Your task to perform on an android device: Open notification settings Image 0: 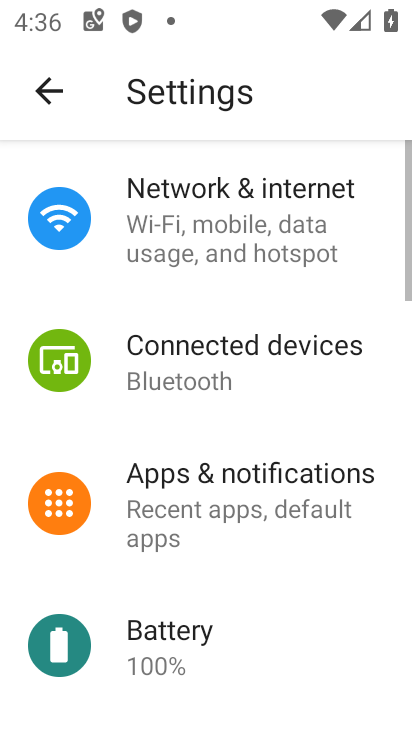
Step 0: press back button
Your task to perform on an android device: Open notification settings Image 1: 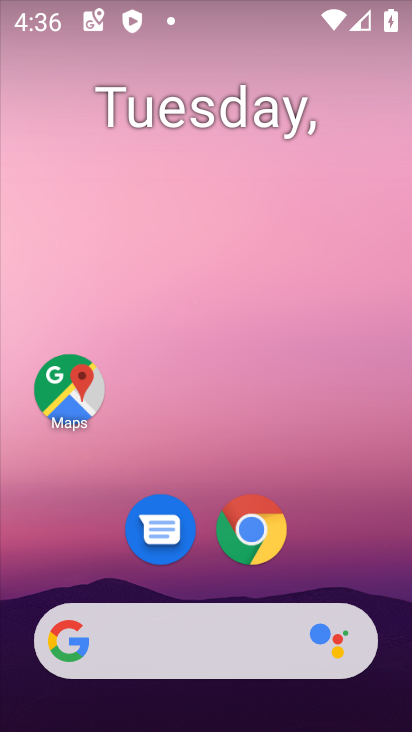
Step 1: drag from (321, 506) to (214, 61)
Your task to perform on an android device: Open notification settings Image 2: 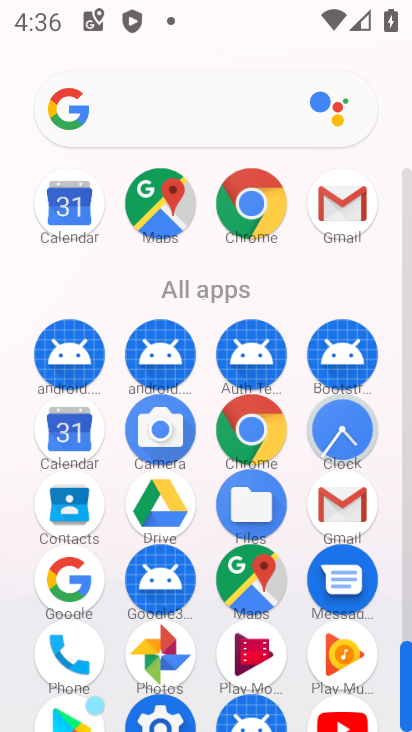
Step 2: drag from (22, 639) to (1, 535)
Your task to perform on an android device: Open notification settings Image 3: 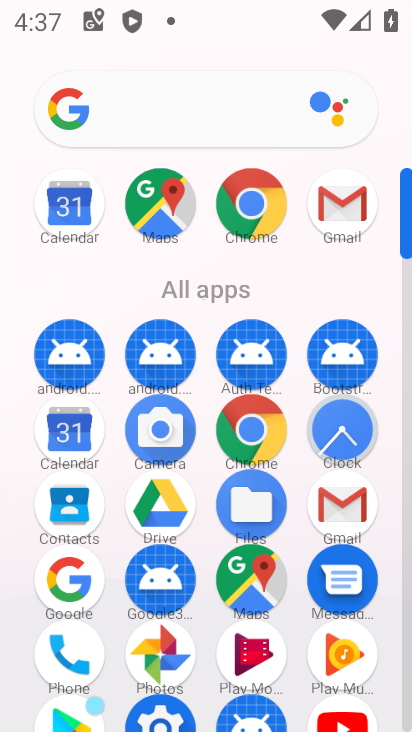
Step 3: drag from (14, 533) to (11, 274)
Your task to perform on an android device: Open notification settings Image 4: 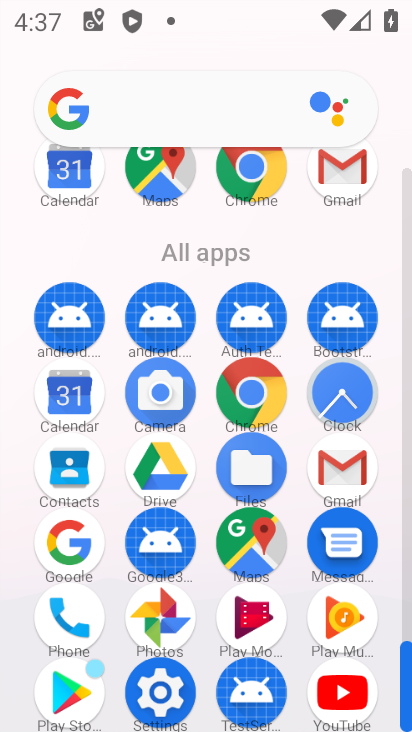
Step 4: click (158, 688)
Your task to perform on an android device: Open notification settings Image 5: 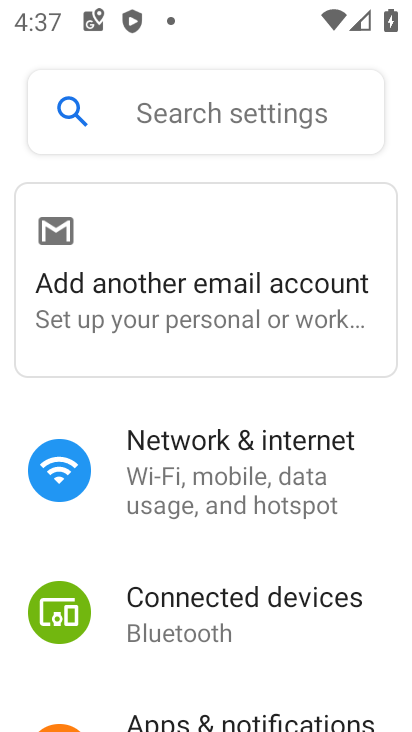
Step 5: drag from (230, 639) to (228, 243)
Your task to perform on an android device: Open notification settings Image 6: 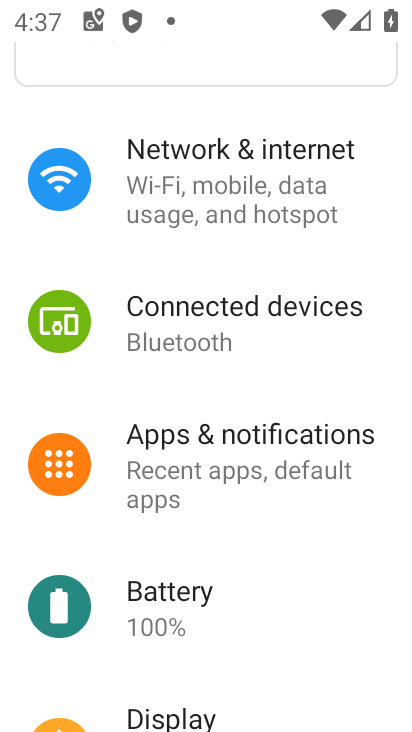
Step 6: click (186, 460)
Your task to perform on an android device: Open notification settings Image 7: 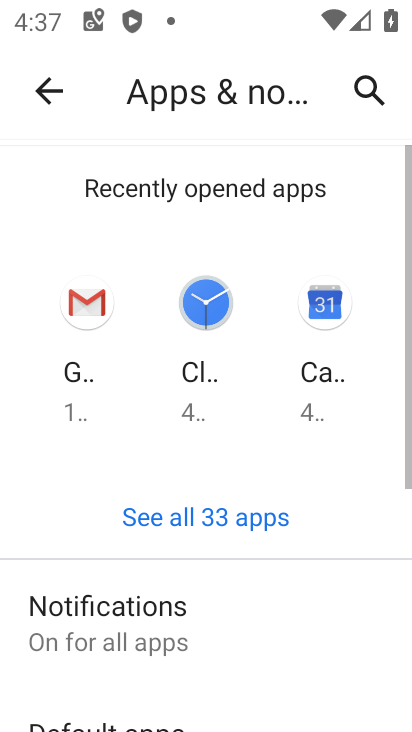
Step 7: click (180, 612)
Your task to perform on an android device: Open notification settings Image 8: 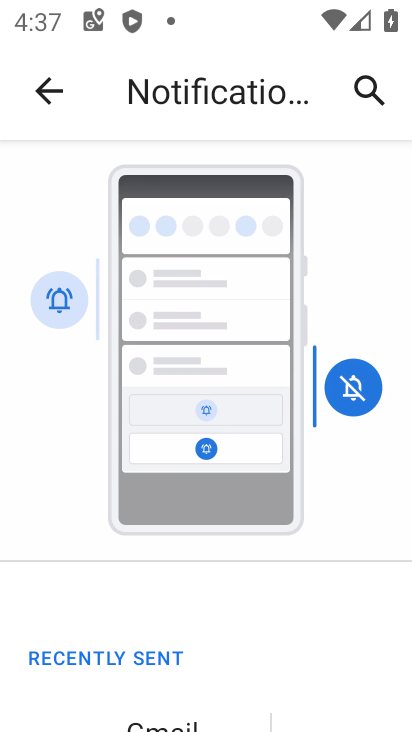
Step 8: drag from (238, 605) to (210, 141)
Your task to perform on an android device: Open notification settings Image 9: 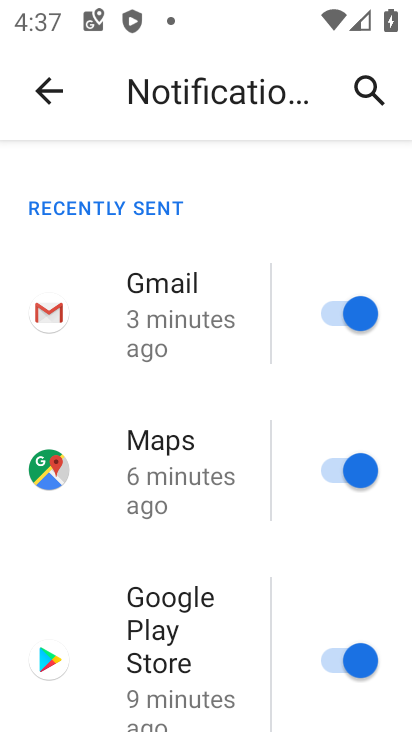
Step 9: drag from (208, 546) to (213, 199)
Your task to perform on an android device: Open notification settings Image 10: 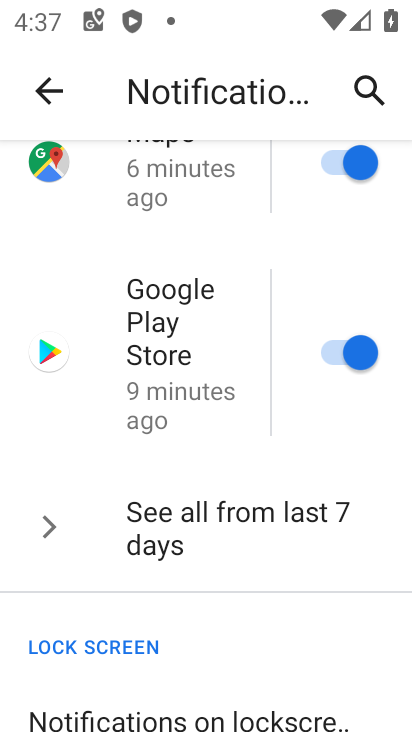
Step 10: drag from (197, 582) to (209, 206)
Your task to perform on an android device: Open notification settings Image 11: 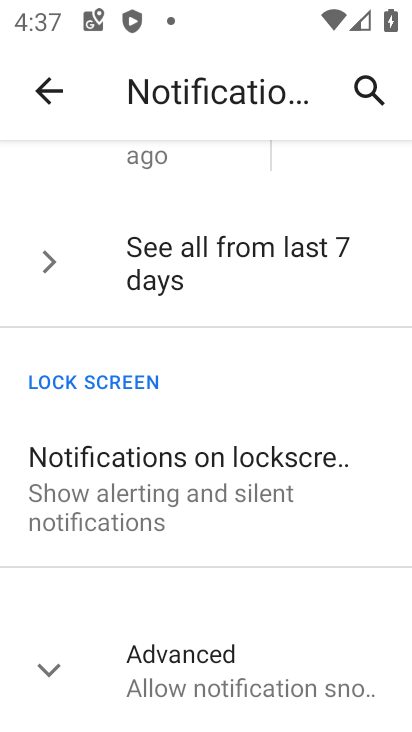
Step 11: drag from (166, 608) to (172, 345)
Your task to perform on an android device: Open notification settings Image 12: 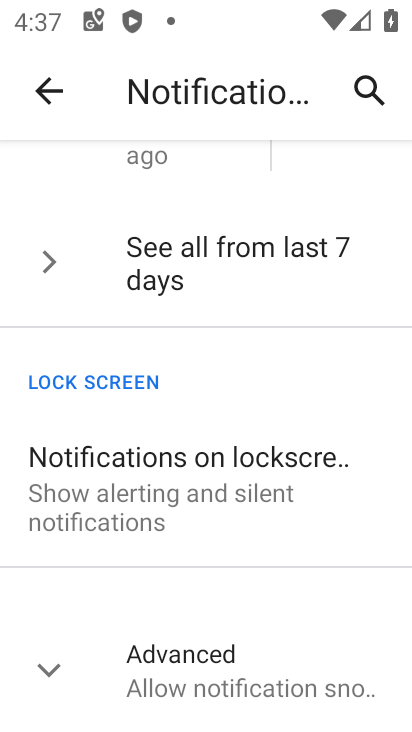
Step 12: click (57, 663)
Your task to perform on an android device: Open notification settings Image 13: 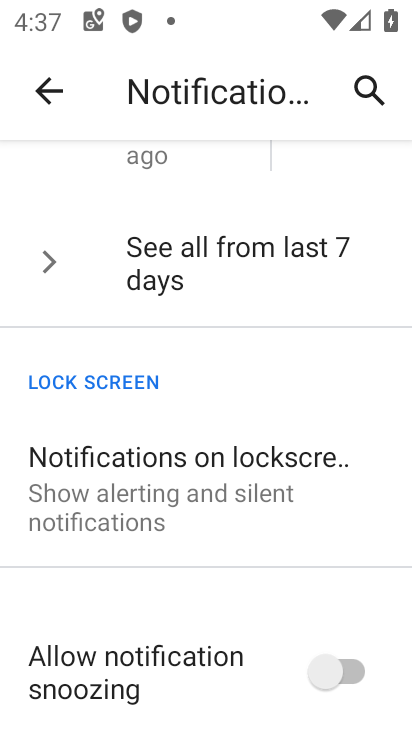
Step 13: task complete